Your task to perform on an android device: clear all cookies in the chrome app Image 0: 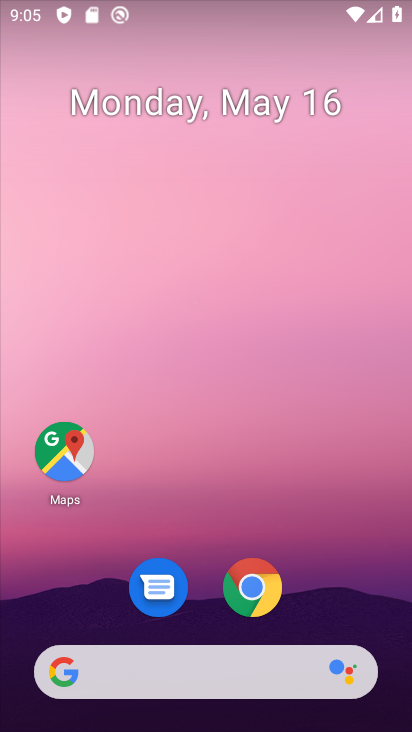
Step 0: click (255, 597)
Your task to perform on an android device: clear all cookies in the chrome app Image 1: 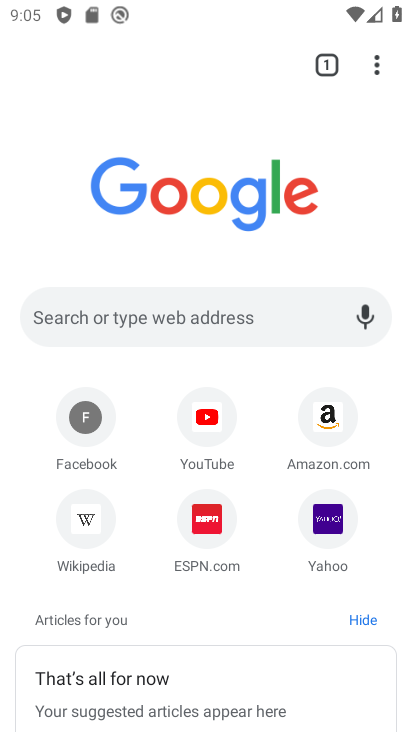
Step 1: click (407, 71)
Your task to perform on an android device: clear all cookies in the chrome app Image 2: 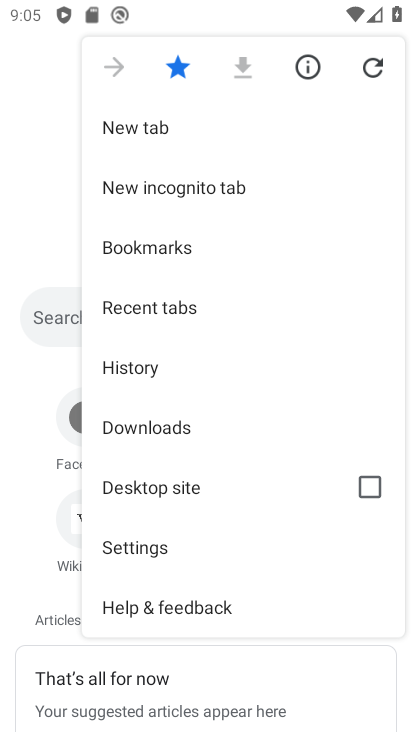
Step 2: click (220, 556)
Your task to perform on an android device: clear all cookies in the chrome app Image 3: 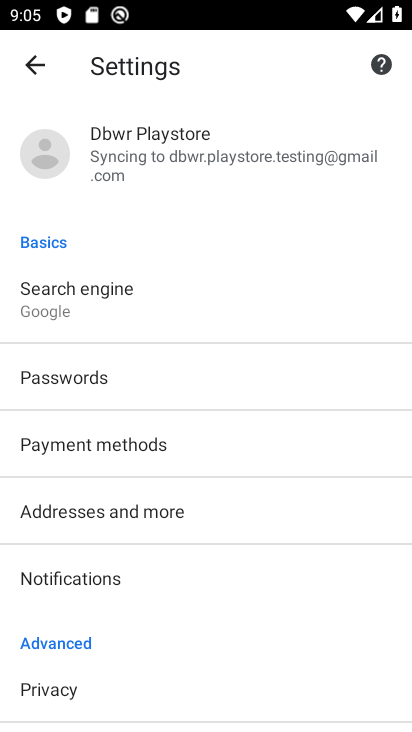
Step 3: drag from (155, 703) to (199, 515)
Your task to perform on an android device: clear all cookies in the chrome app Image 4: 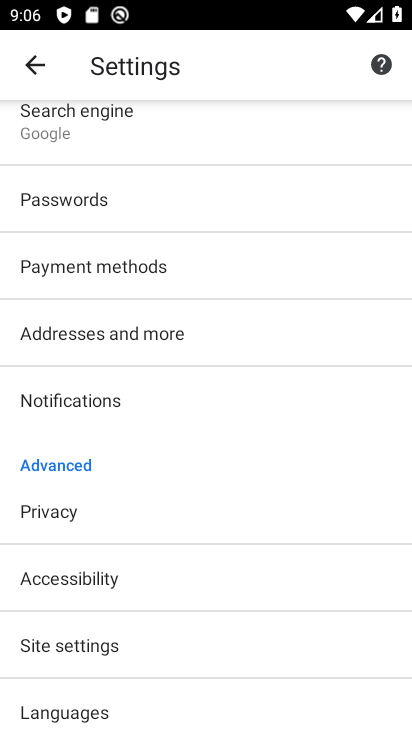
Step 4: click (125, 517)
Your task to perform on an android device: clear all cookies in the chrome app Image 5: 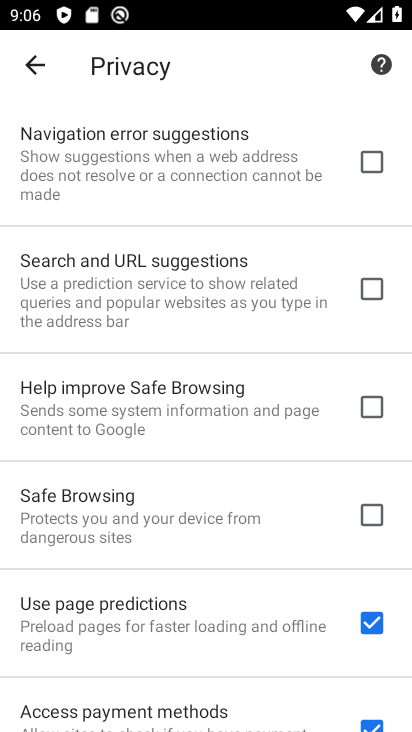
Step 5: drag from (139, 669) to (214, 214)
Your task to perform on an android device: clear all cookies in the chrome app Image 6: 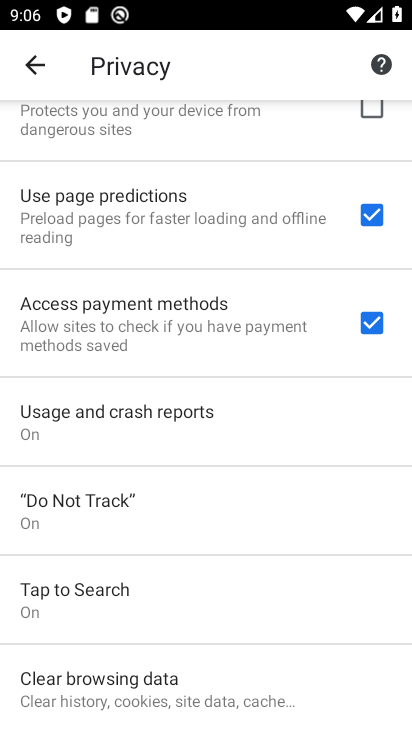
Step 6: click (161, 698)
Your task to perform on an android device: clear all cookies in the chrome app Image 7: 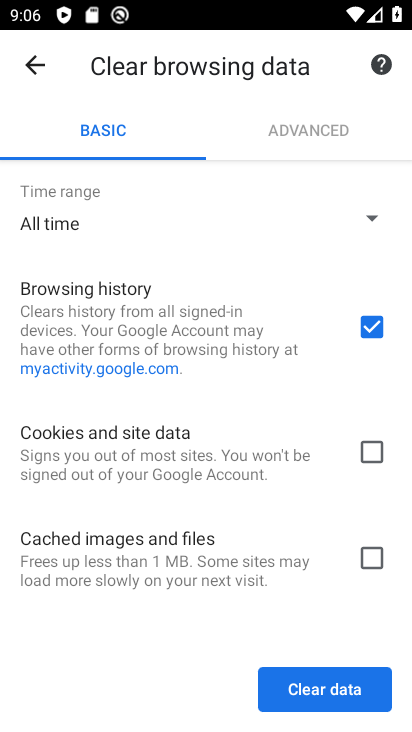
Step 7: click (373, 458)
Your task to perform on an android device: clear all cookies in the chrome app Image 8: 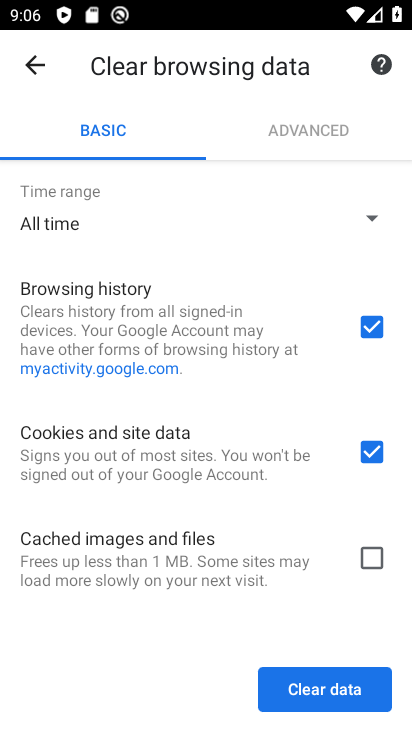
Step 8: click (370, 328)
Your task to perform on an android device: clear all cookies in the chrome app Image 9: 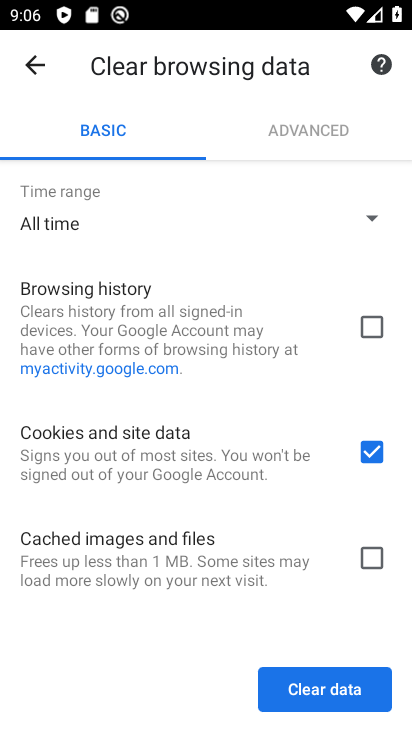
Step 9: click (347, 698)
Your task to perform on an android device: clear all cookies in the chrome app Image 10: 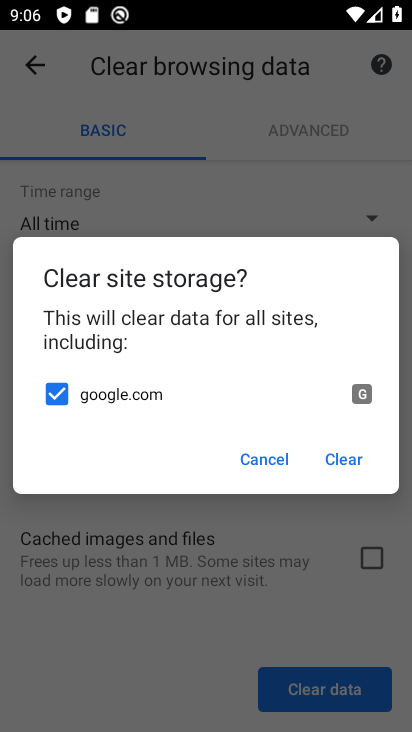
Step 10: click (341, 461)
Your task to perform on an android device: clear all cookies in the chrome app Image 11: 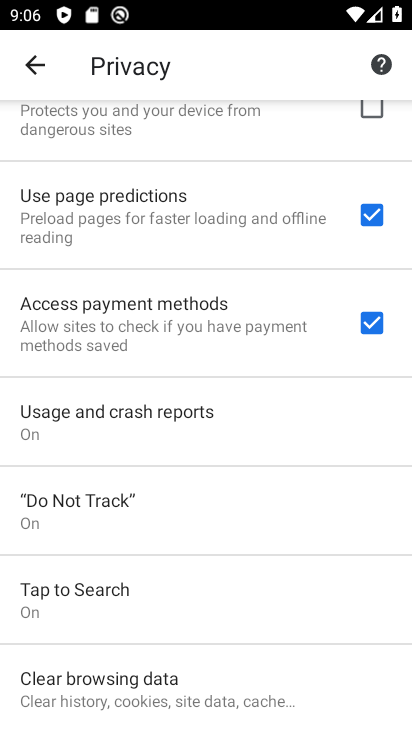
Step 11: task complete